Your task to perform on an android device: set default search engine in the chrome app Image 0: 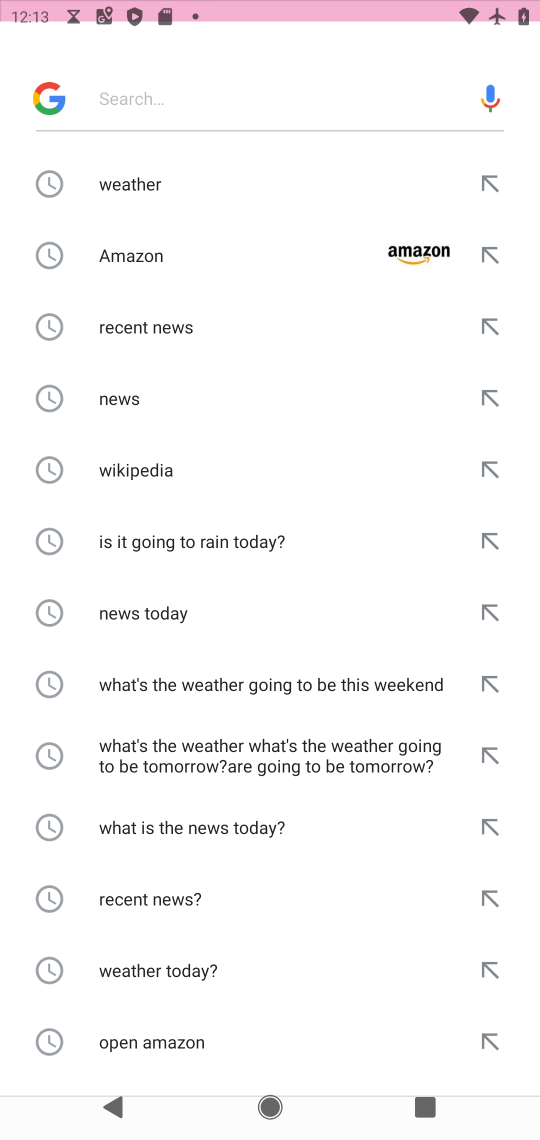
Step 0: press home button
Your task to perform on an android device: set default search engine in the chrome app Image 1: 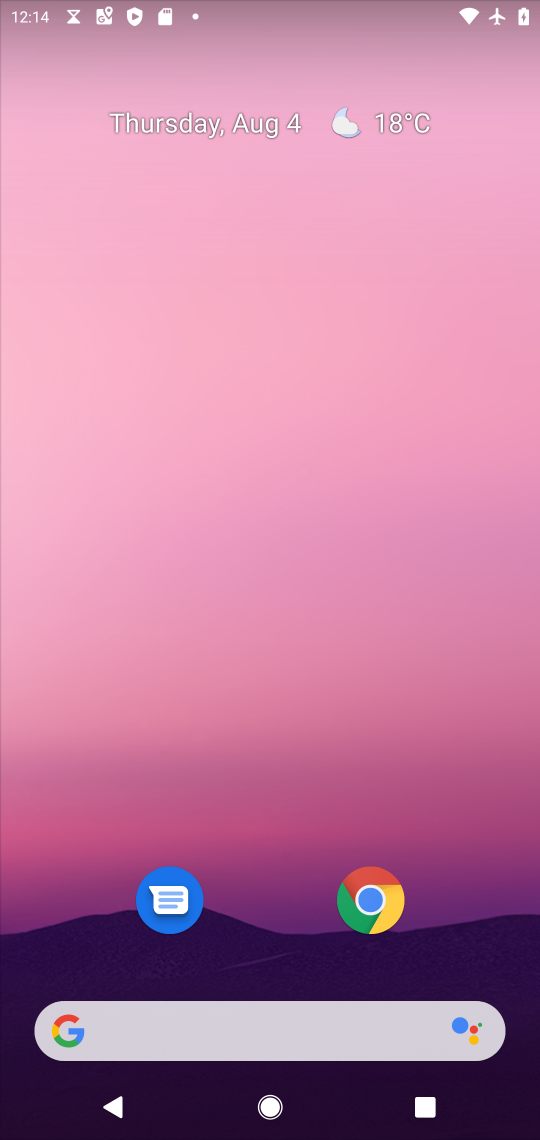
Step 1: click (375, 914)
Your task to perform on an android device: set default search engine in the chrome app Image 2: 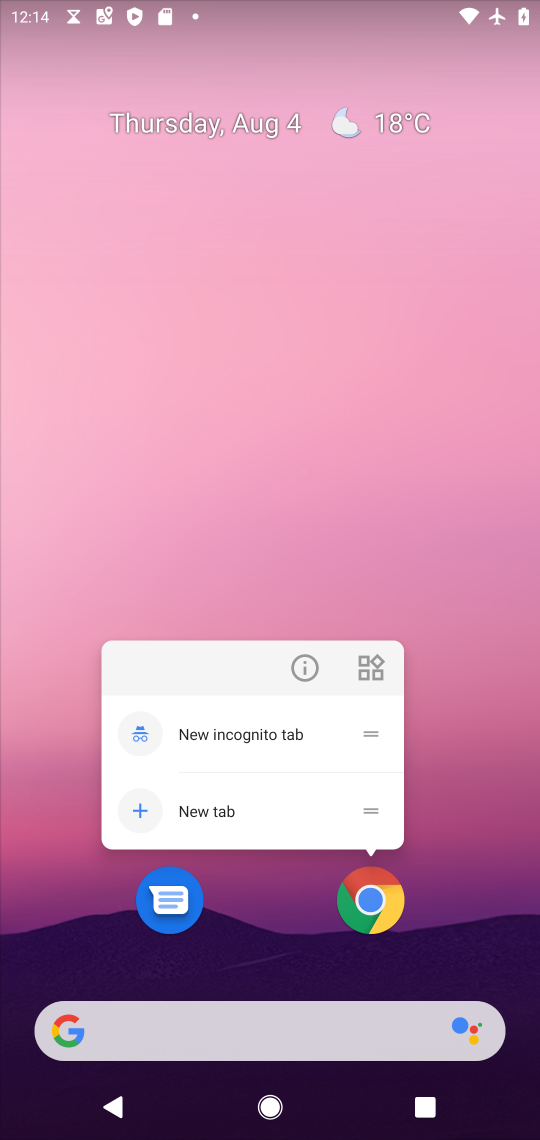
Step 2: click (375, 914)
Your task to perform on an android device: set default search engine in the chrome app Image 3: 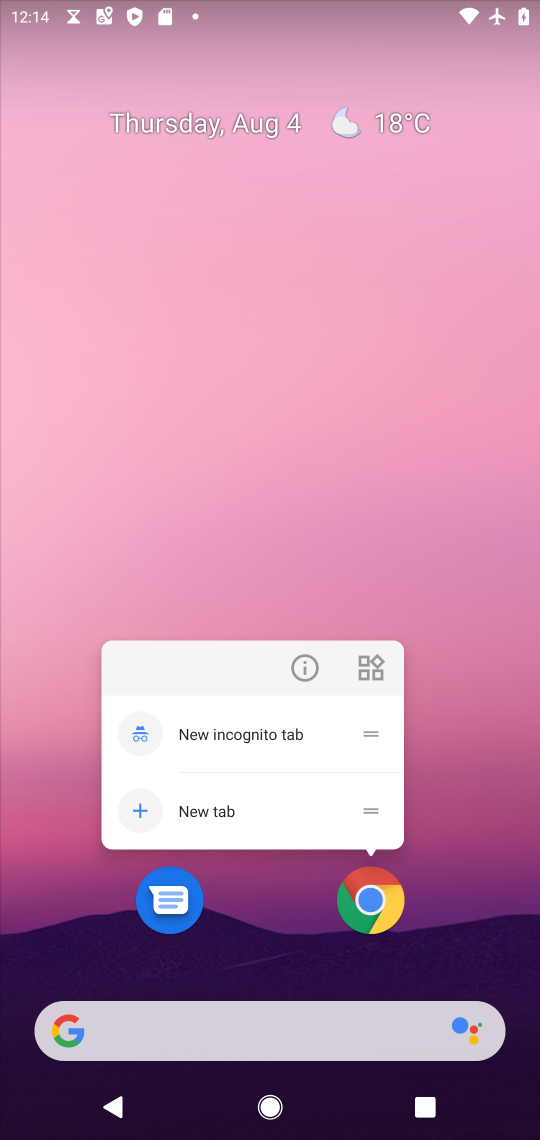
Step 3: click (373, 919)
Your task to perform on an android device: set default search engine in the chrome app Image 4: 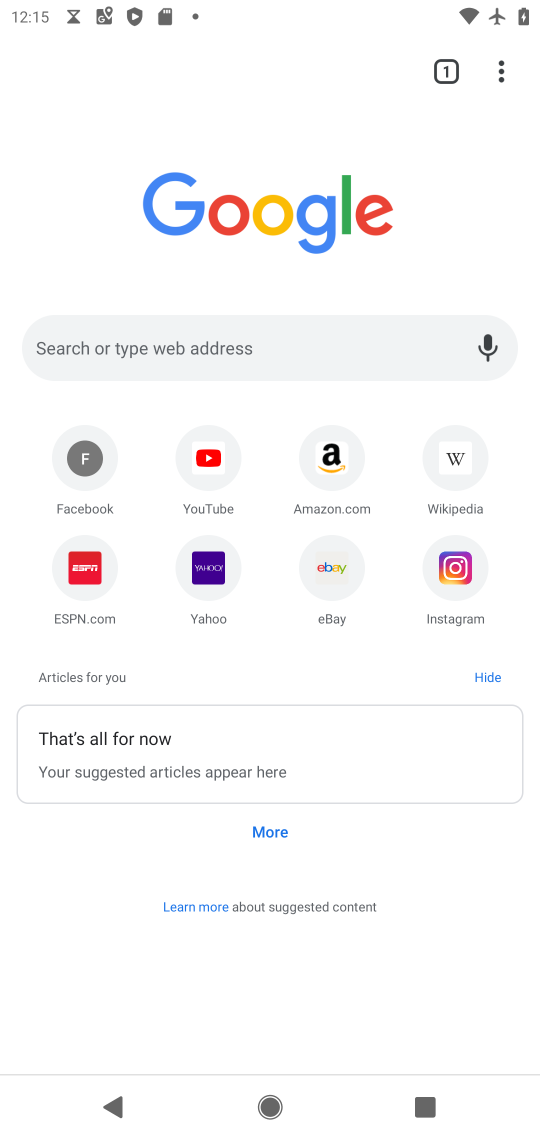
Step 4: drag from (495, 74) to (250, 593)
Your task to perform on an android device: set default search engine in the chrome app Image 5: 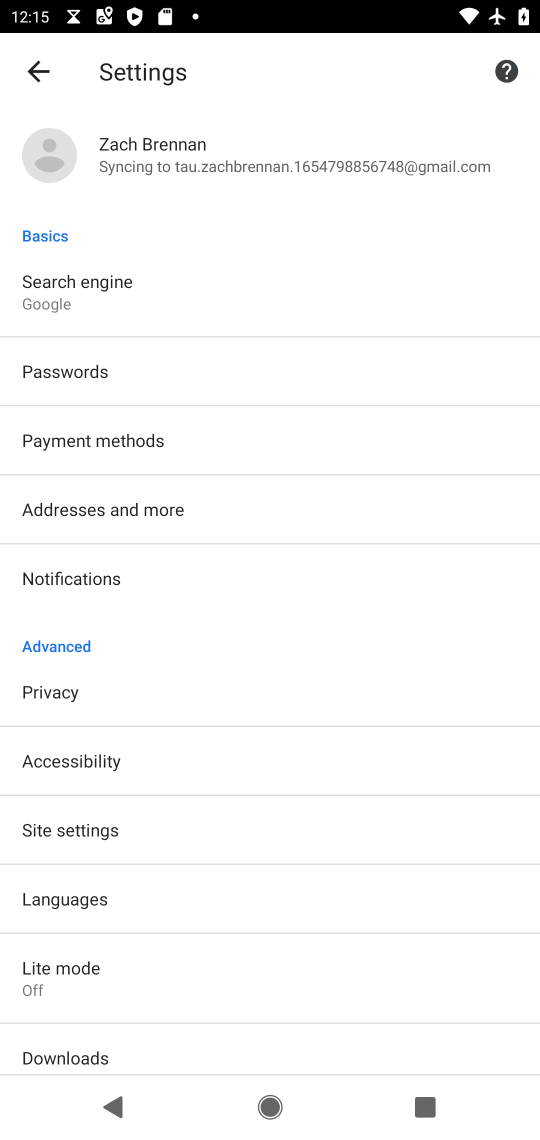
Step 5: click (77, 290)
Your task to perform on an android device: set default search engine in the chrome app Image 6: 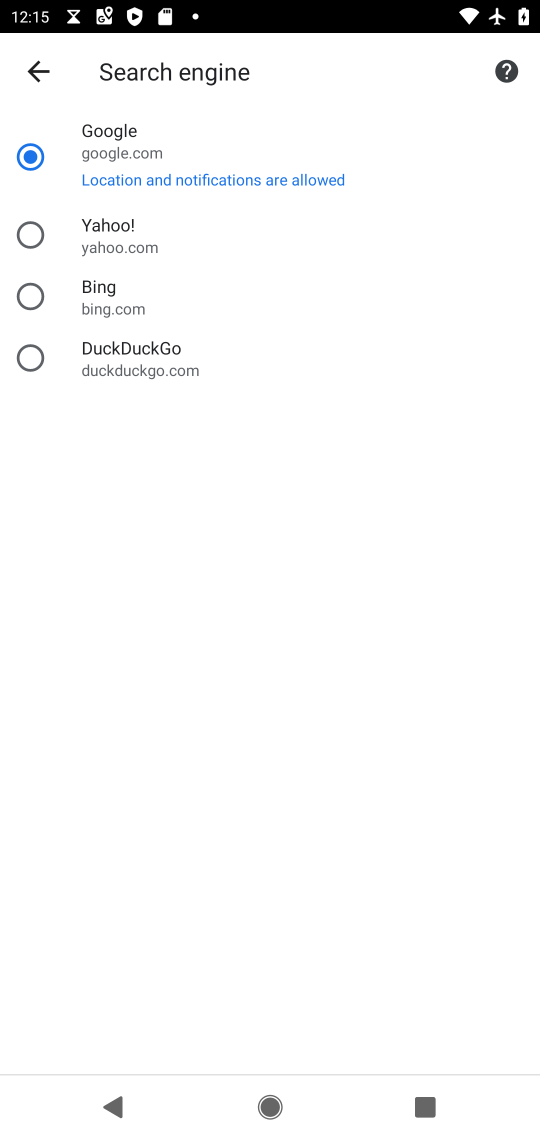
Step 6: click (30, 297)
Your task to perform on an android device: set default search engine in the chrome app Image 7: 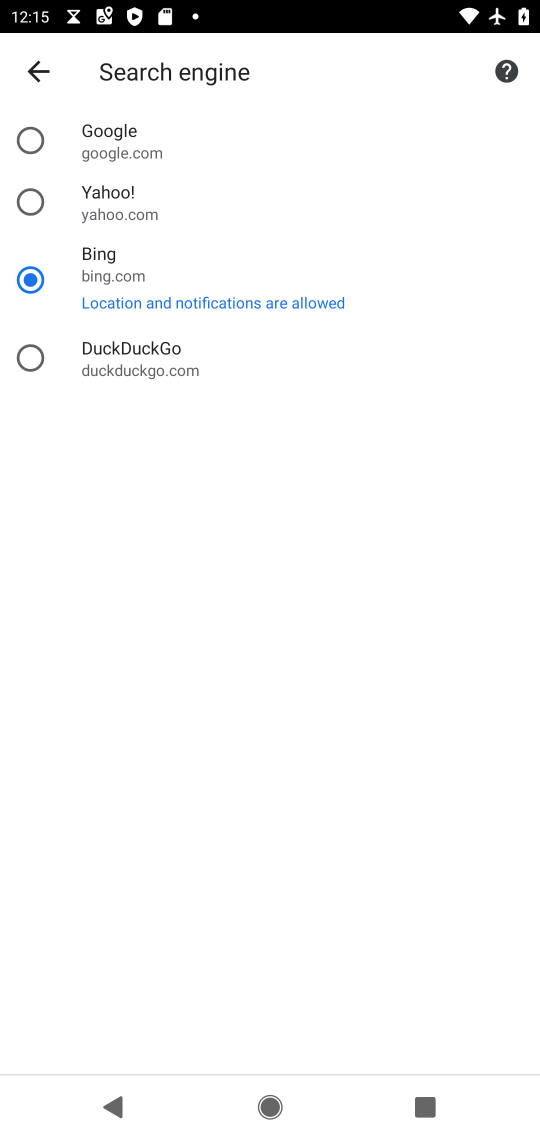
Step 7: task complete